Your task to perform on an android device: change alarm snooze length Image 0: 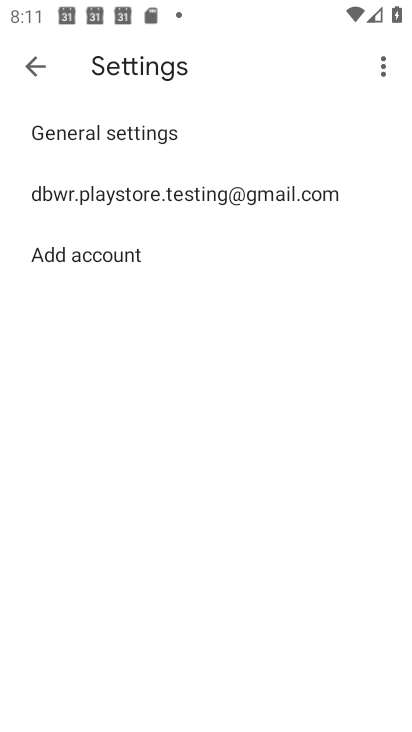
Step 0: press home button
Your task to perform on an android device: change alarm snooze length Image 1: 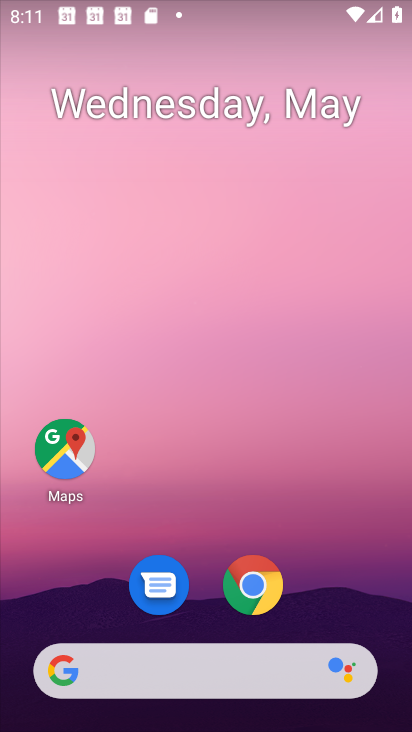
Step 1: drag from (237, 502) to (257, 50)
Your task to perform on an android device: change alarm snooze length Image 2: 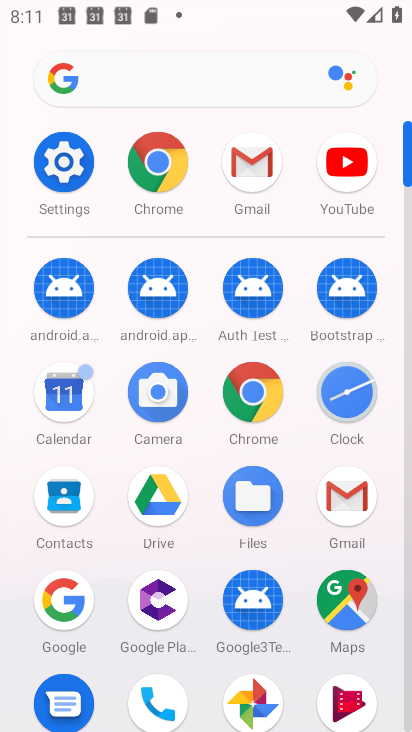
Step 2: click (349, 400)
Your task to perform on an android device: change alarm snooze length Image 3: 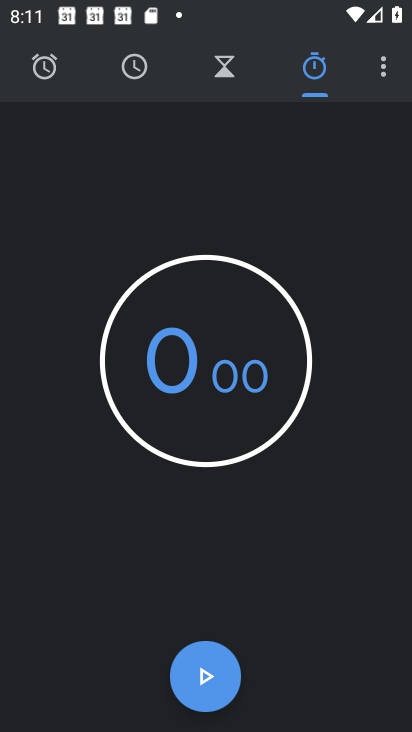
Step 3: click (385, 71)
Your task to perform on an android device: change alarm snooze length Image 4: 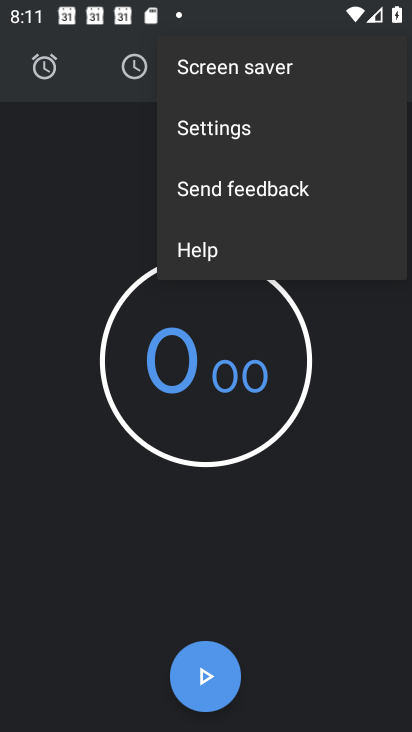
Step 4: click (313, 135)
Your task to perform on an android device: change alarm snooze length Image 5: 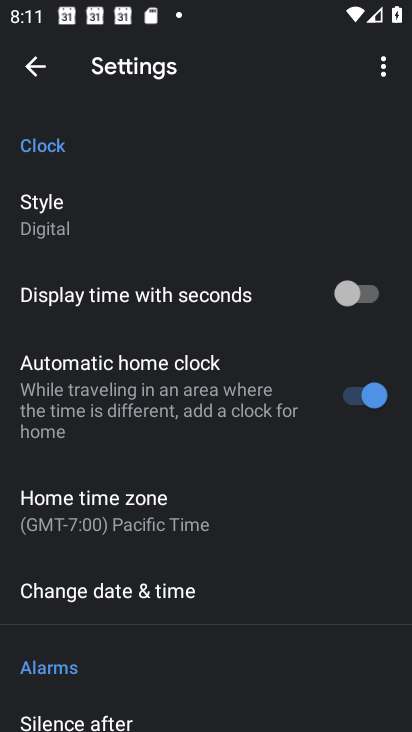
Step 5: drag from (209, 536) to (221, 346)
Your task to perform on an android device: change alarm snooze length Image 6: 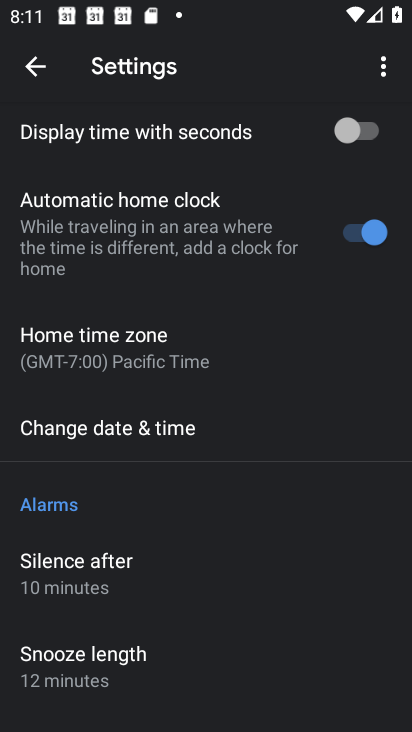
Step 6: click (123, 657)
Your task to perform on an android device: change alarm snooze length Image 7: 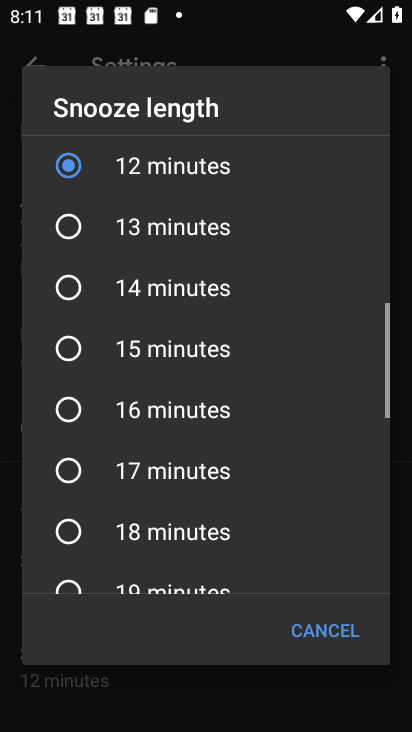
Step 7: drag from (173, 335) to (154, 435)
Your task to perform on an android device: change alarm snooze length Image 8: 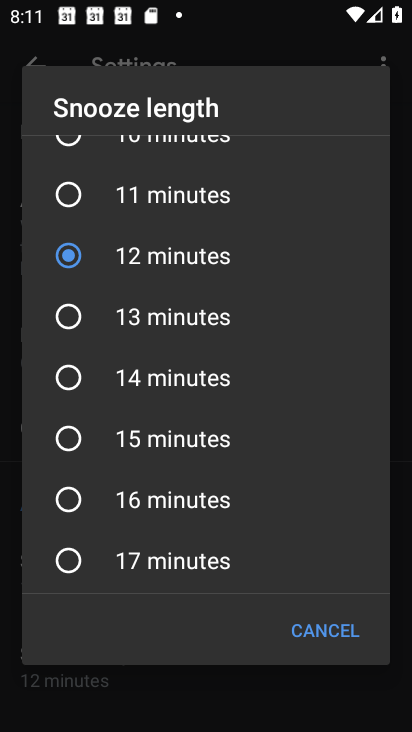
Step 8: drag from (140, 206) to (137, 400)
Your task to perform on an android device: change alarm snooze length Image 9: 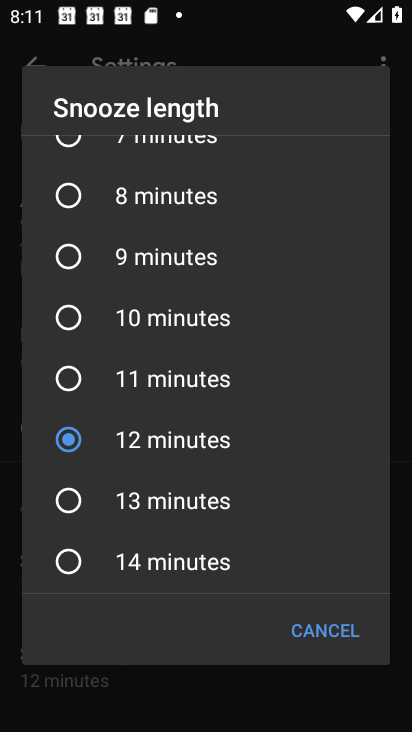
Step 9: click (72, 315)
Your task to perform on an android device: change alarm snooze length Image 10: 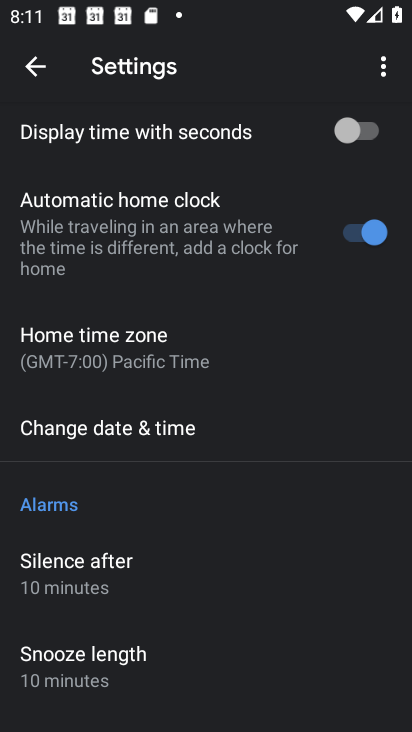
Step 10: task complete